Your task to perform on an android device: turn smart compose on in the gmail app Image 0: 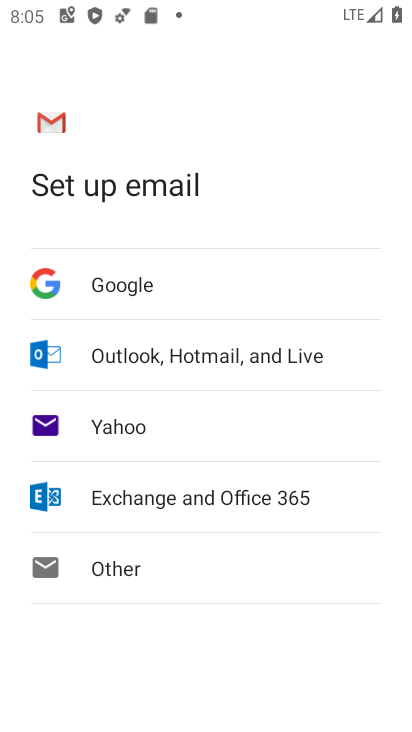
Step 0: press home button
Your task to perform on an android device: turn smart compose on in the gmail app Image 1: 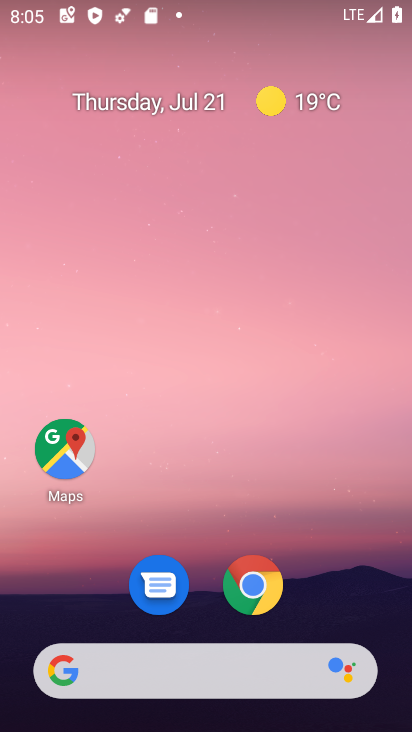
Step 1: drag from (337, 590) to (290, 142)
Your task to perform on an android device: turn smart compose on in the gmail app Image 2: 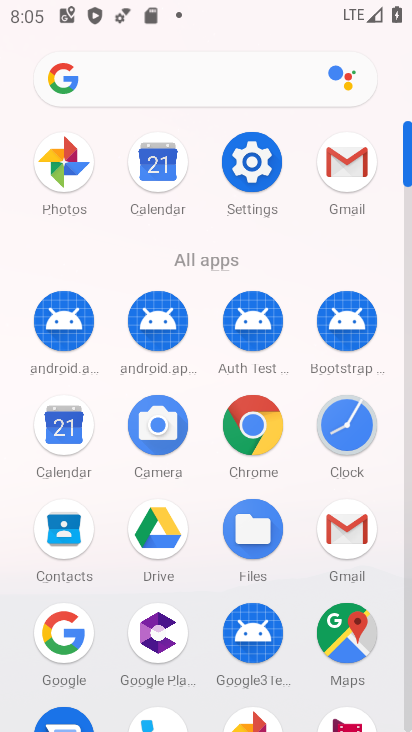
Step 2: click (339, 159)
Your task to perform on an android device: turn smart compose on in the gmail app Image 3: 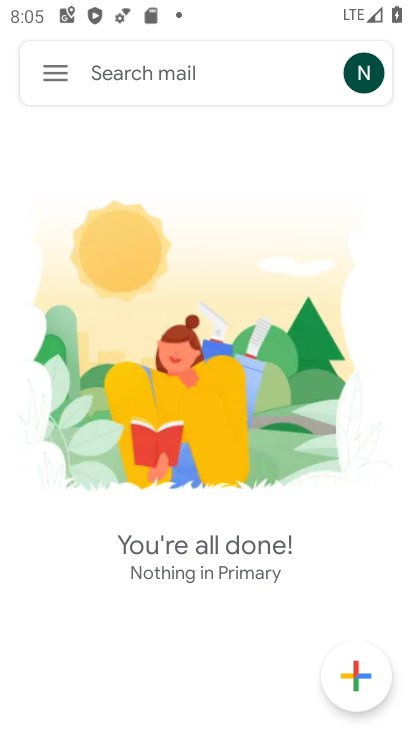
Step 3: click (49, 74)
Your task to perform on an android device: turn smart compose on in the gmail app Image 4: 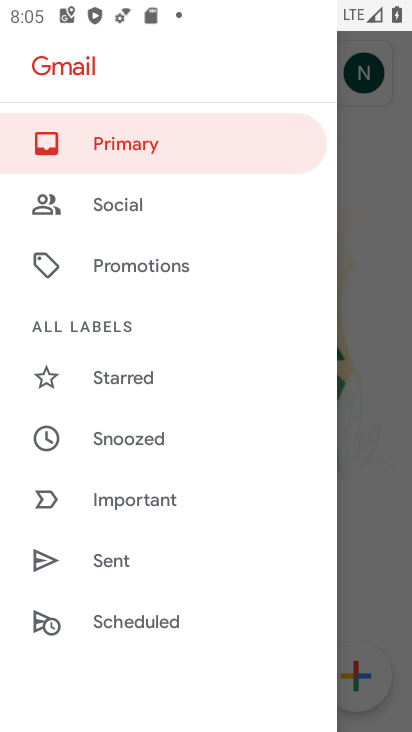
Step 4: drag from (188, 592) to (223, 99)
Your task to perform on an android device: turn smart compose on in the gmail app Image 5: 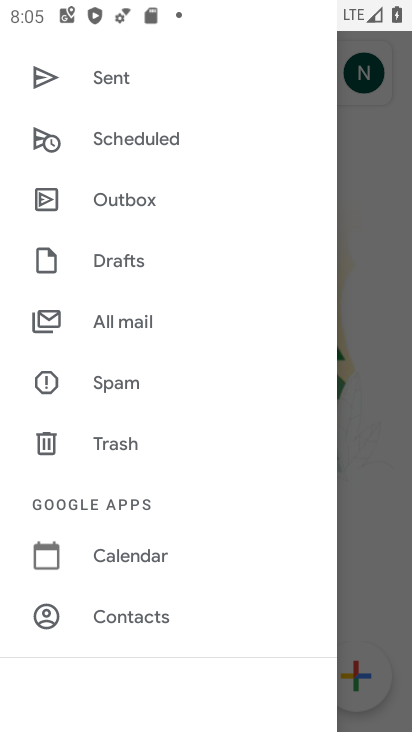
Step 5: drag from (218, 446) to (218, 173)
Your task to perform on an android device: turn smart compose on in the gmail app Image 6: 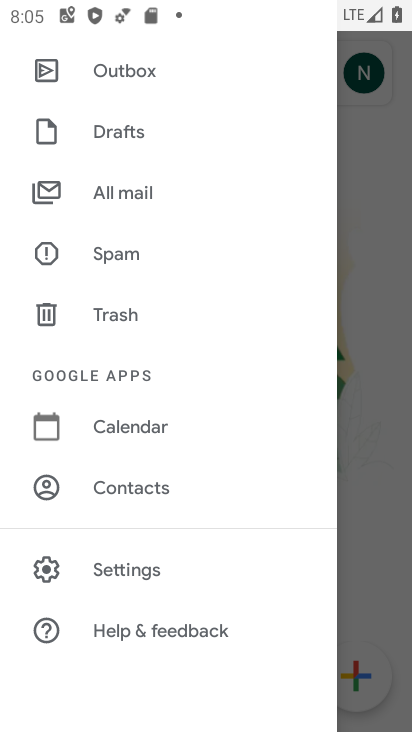
Step 6: click (139, 568)
Your task to perform on an android device: turn smart compose on in the gmail app Image 7: 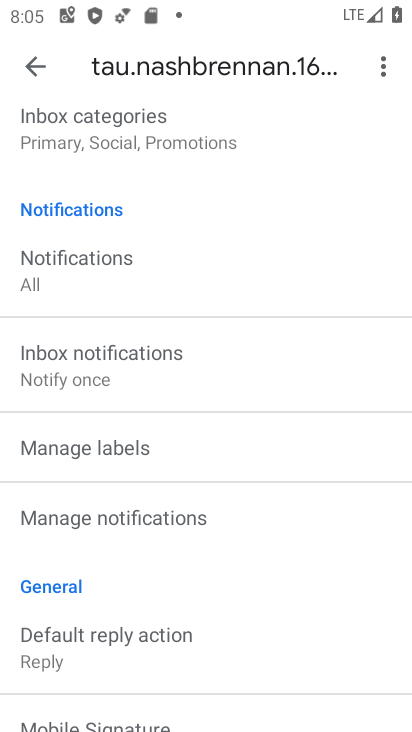
Step 7: task complete